Your task to perform on an android device: find snoozed emails in the gmail app Image 0: 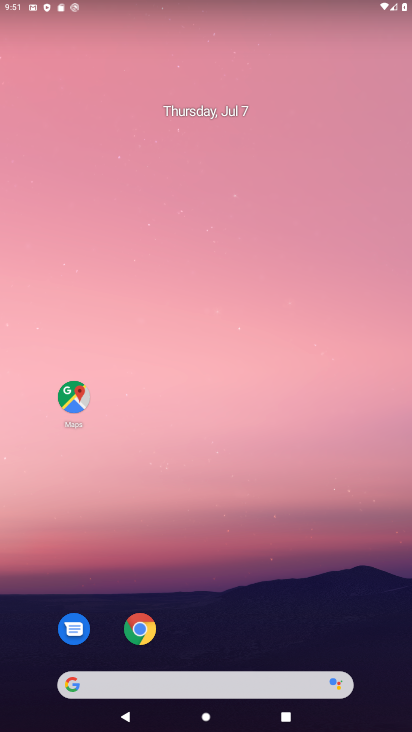
Step 0: press home button
Your task to perform on an android device: find snoozed emails in the gmail app Image 1: 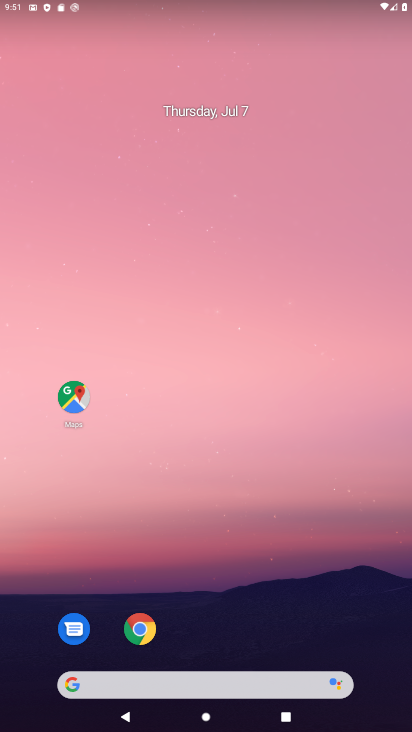
Step 1: drag from (242, 645) to (221, 127)
Your task to perform on an android device: find snoozed emails in the gmail app Image 2: 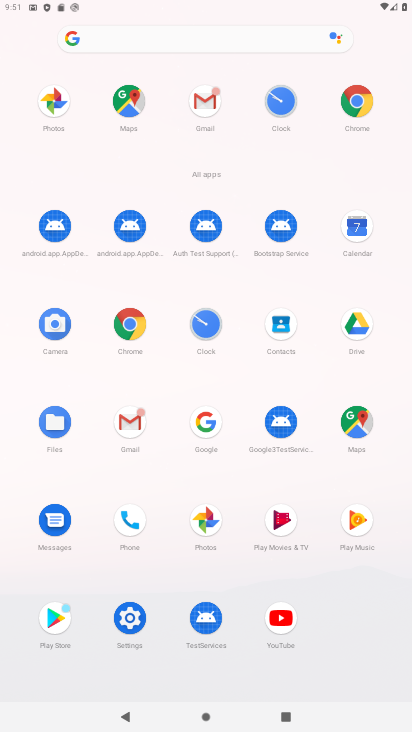
Step 2: click (213, 93)
Your task to perform on an android device: find snoozed emails in the gmail app Image 3: 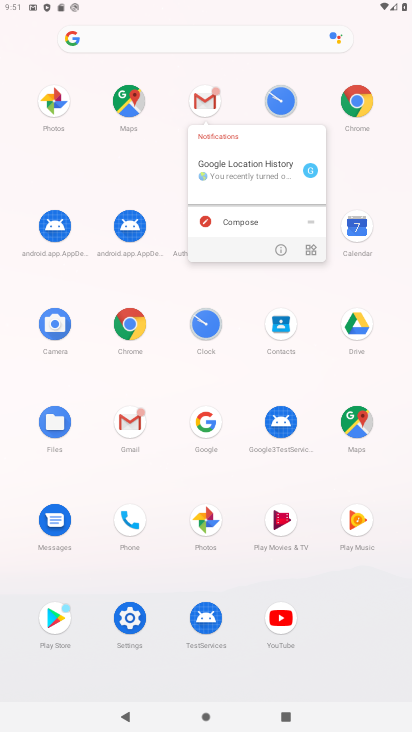
Step 3: click (204, 101)
Your task to perform on an android device: find snoozed emails in the gmail app Image 4: 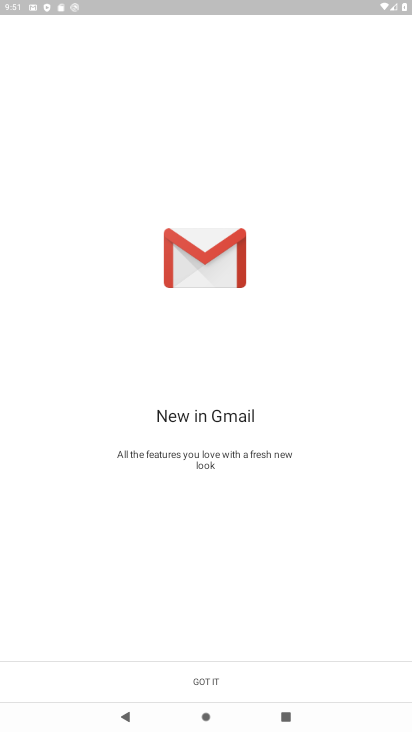
Step 4: click (199, 678)
Your task to perform on an android device: find snoozed emails in the gmail app Image 5: 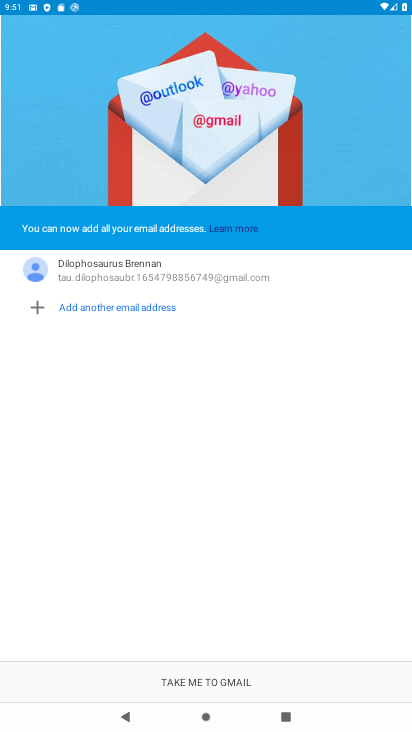
Step 5: click (199, 678)
Your task to perform on an android device: find snoozed emails in the gmail app Image 6: 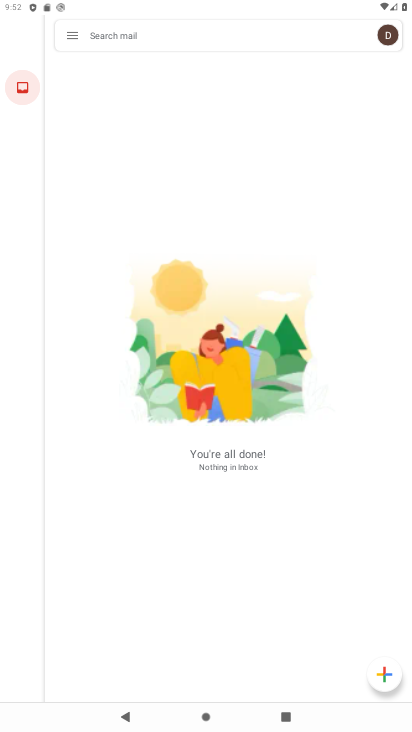
Step 6: click (65, 39)
Your task to perform on an android device: find snoozed emails in the gmail app Image 7: 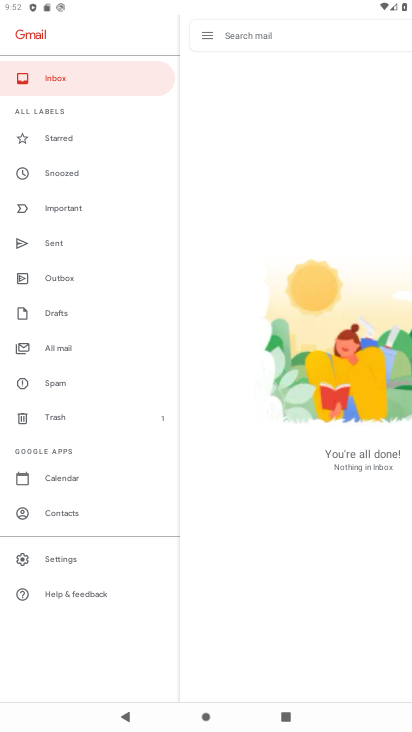
Step 7: click (53, 171)
Your task to perform on an android device: find snoozed emails in the gmail app Image 8: 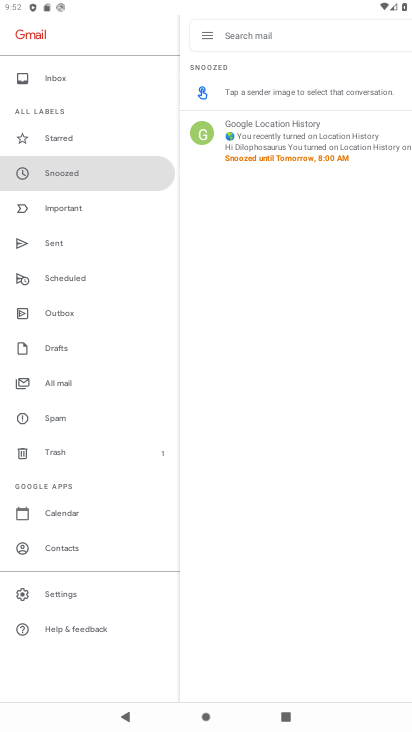
Step 8: click (292, 141)
Your task to perform on an android device: find snoozed emails in the gmail app Image 9: 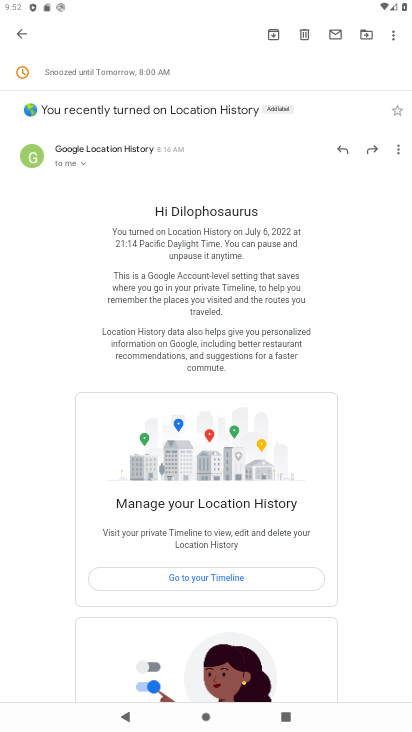
Step 9: task complete